Your task to perform on an android device: Open Youtube and go to "Your channel" Image 0: 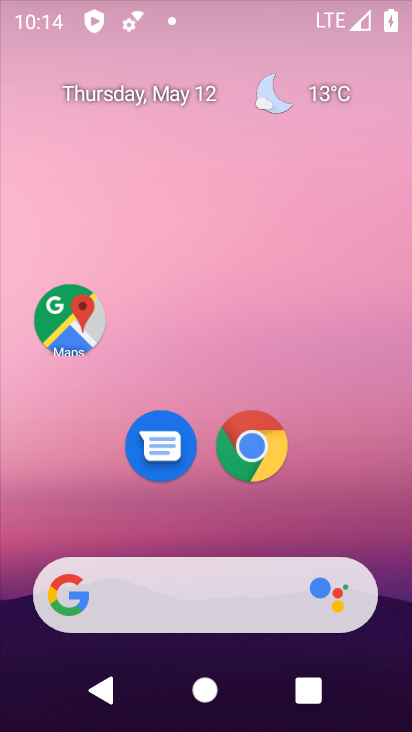
Step 0: drag from (332, 541) to (357, 22)
Your task to perform on an android device: Open Youtube and go to "Your channel" Image 1: 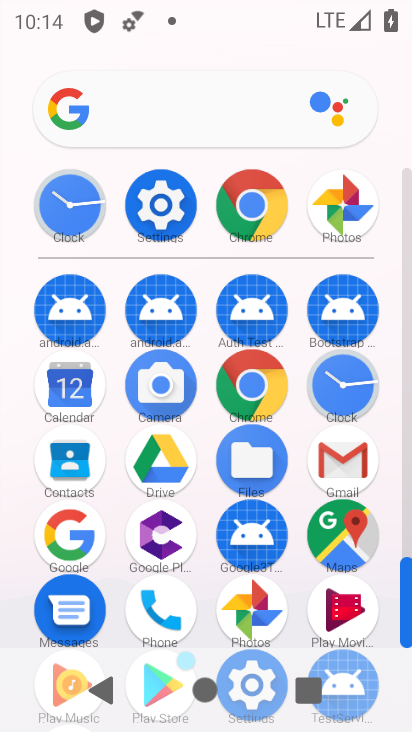
Step 1: drag from (297, 611) to (338, 343)
Your task to perform on an android device: Open Youtube and go to "Your channel" Image 2: 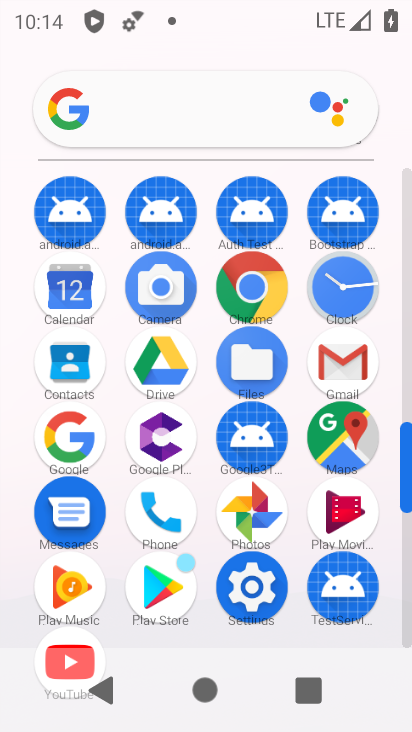
Step 2: click (82, 666)
Your task to perform on an android device: Open Youtube and go to "Your channel" Image 3: 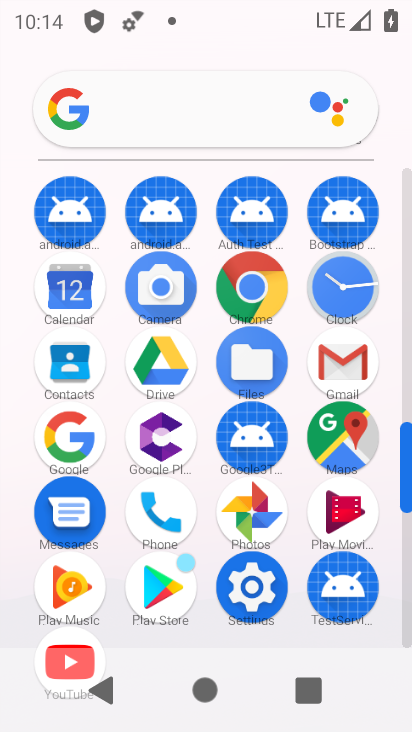
Step 3: drag from (195, 617) to (211, 296)
Your task to perform on an android device: Open Youtube and go to "Your channel" Image 4: 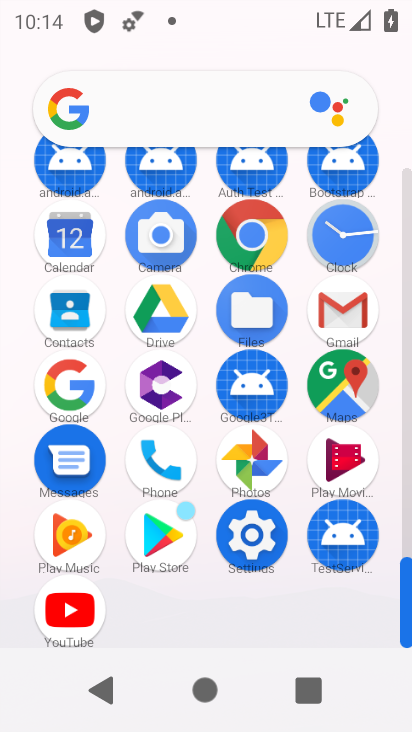
Step 4: click (73, 595)
Your task to perform on an android device: Open Youtube and go to "Your channel" Image 5: 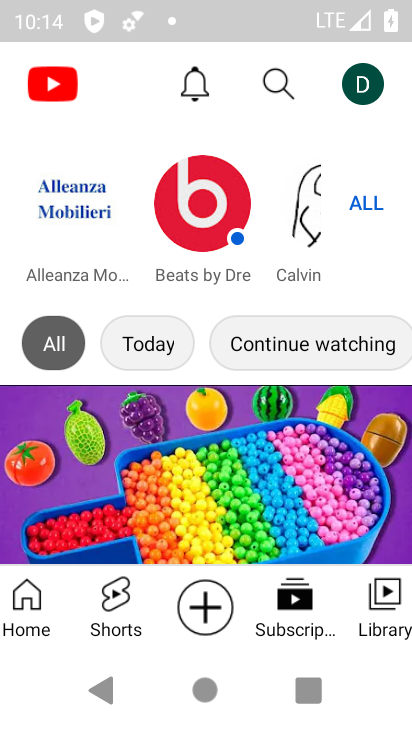
Step 5: click (368, 88)
Your task to perform on an android device: Open Youtube and go to "Your channel" Image 6: 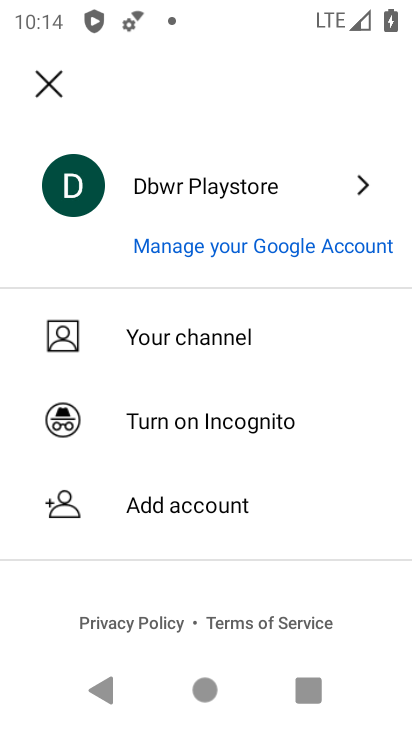
Step 6: click (227, 348)
Your task to perform on an android device: Open Youtube and go to "Your channel" Image 7: 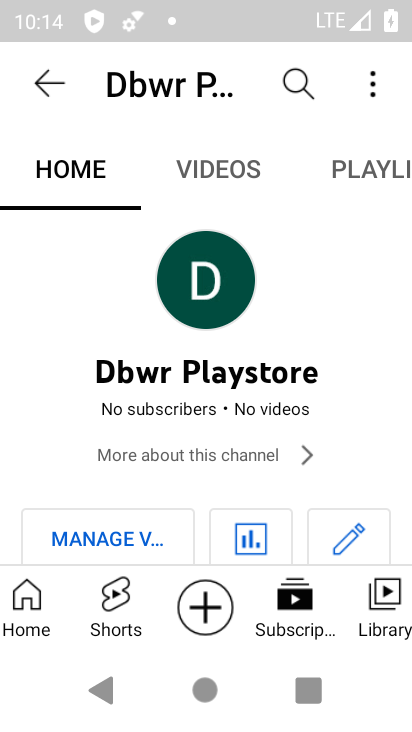
Step 7: task complete